Your task to perform on an android device: turn vacation reply on in the gmail app Image 0: 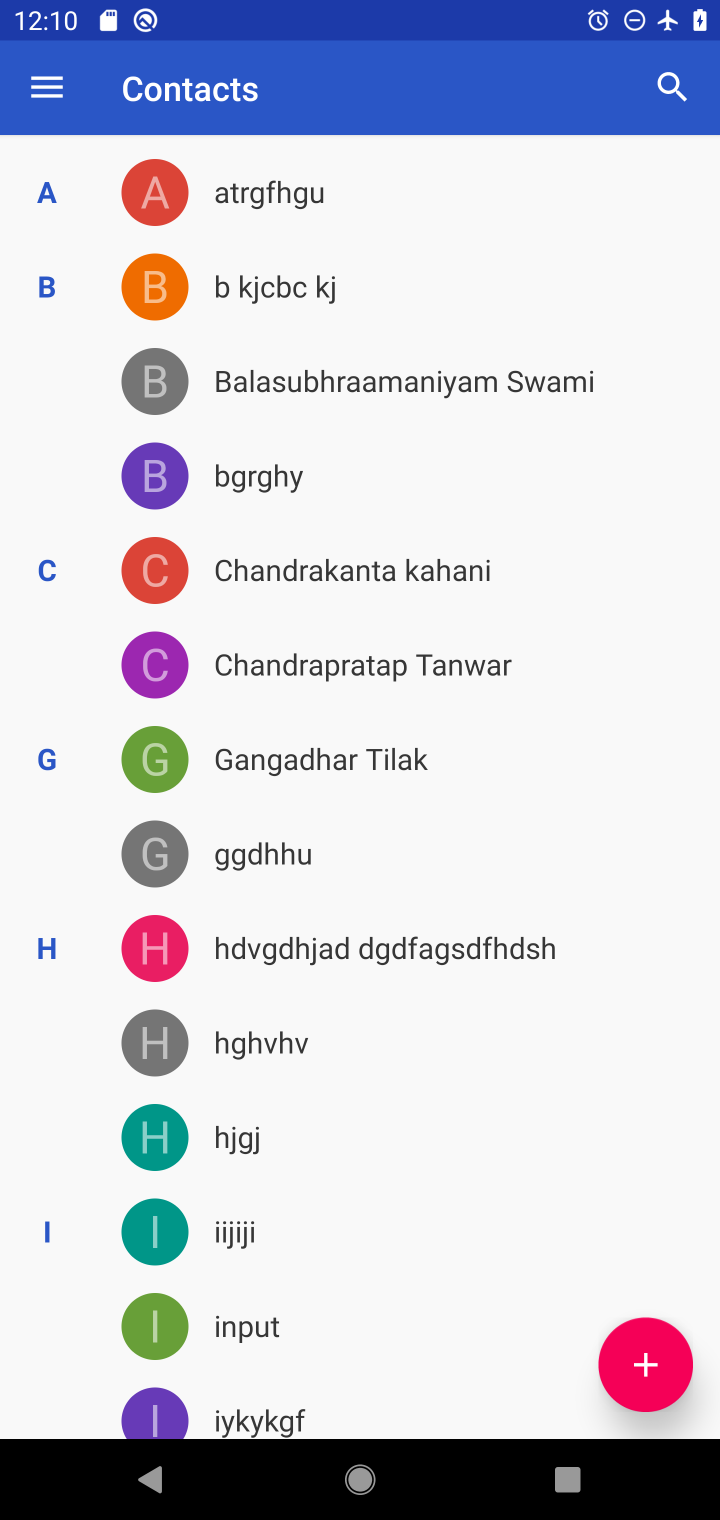
Step 0: press back button
Your task to perform on an android device: turn vacation reply on in the gmail app Image 1: 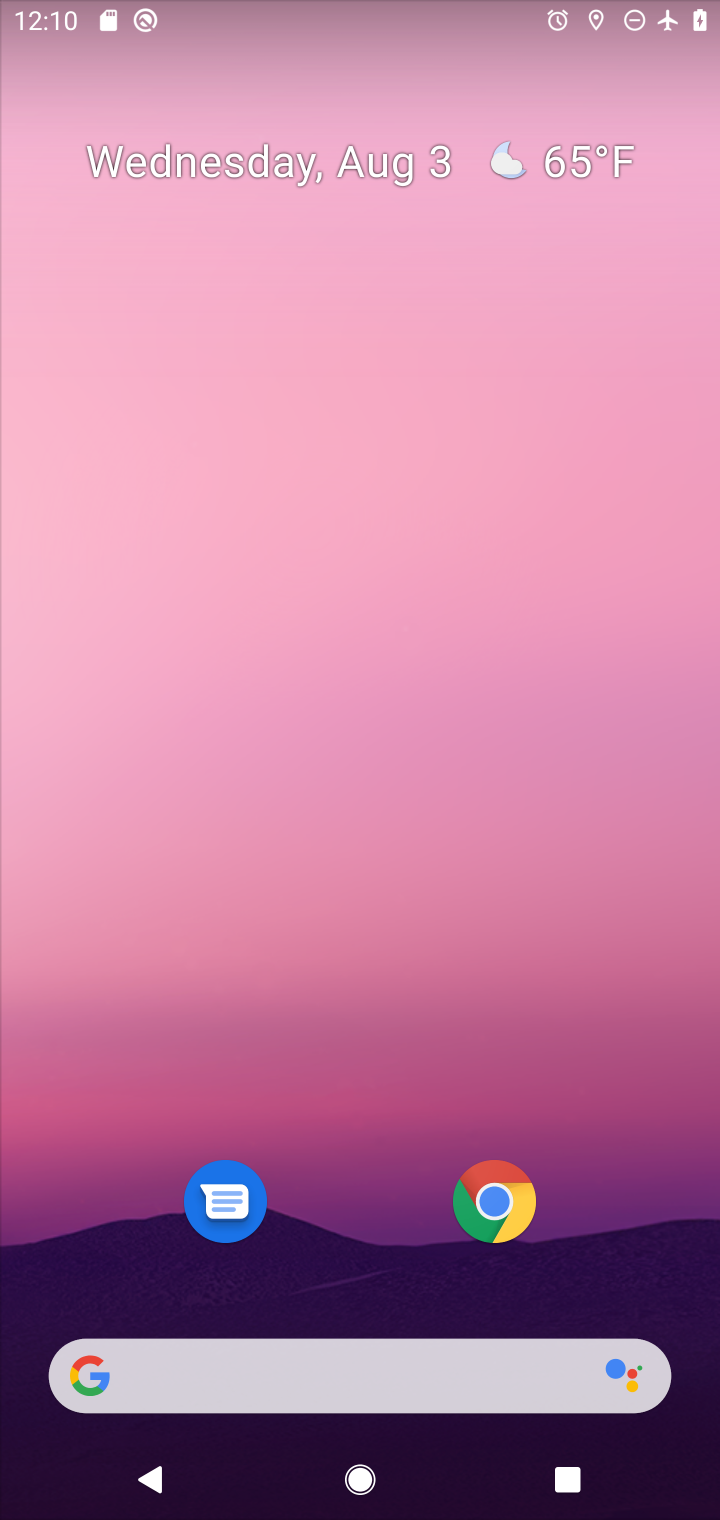
Step 1: drag from (334, 1295) to (301, 9)
Your task to perform on an android device: turn vacation reply on in the gmail app Image 2: 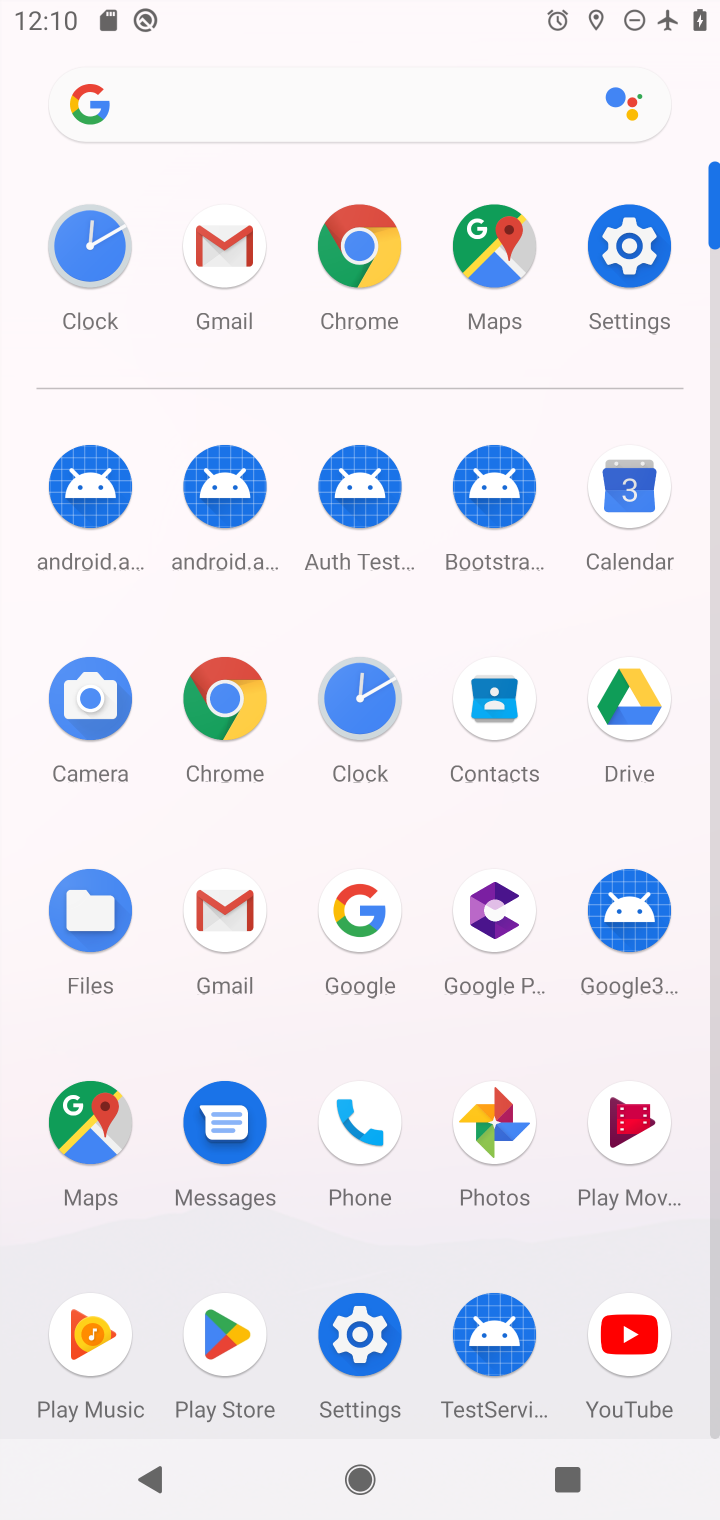
Step 2: click (213, 907)
Your task to perform on an android device: turn vacation reply on in the gmail app Image 3: 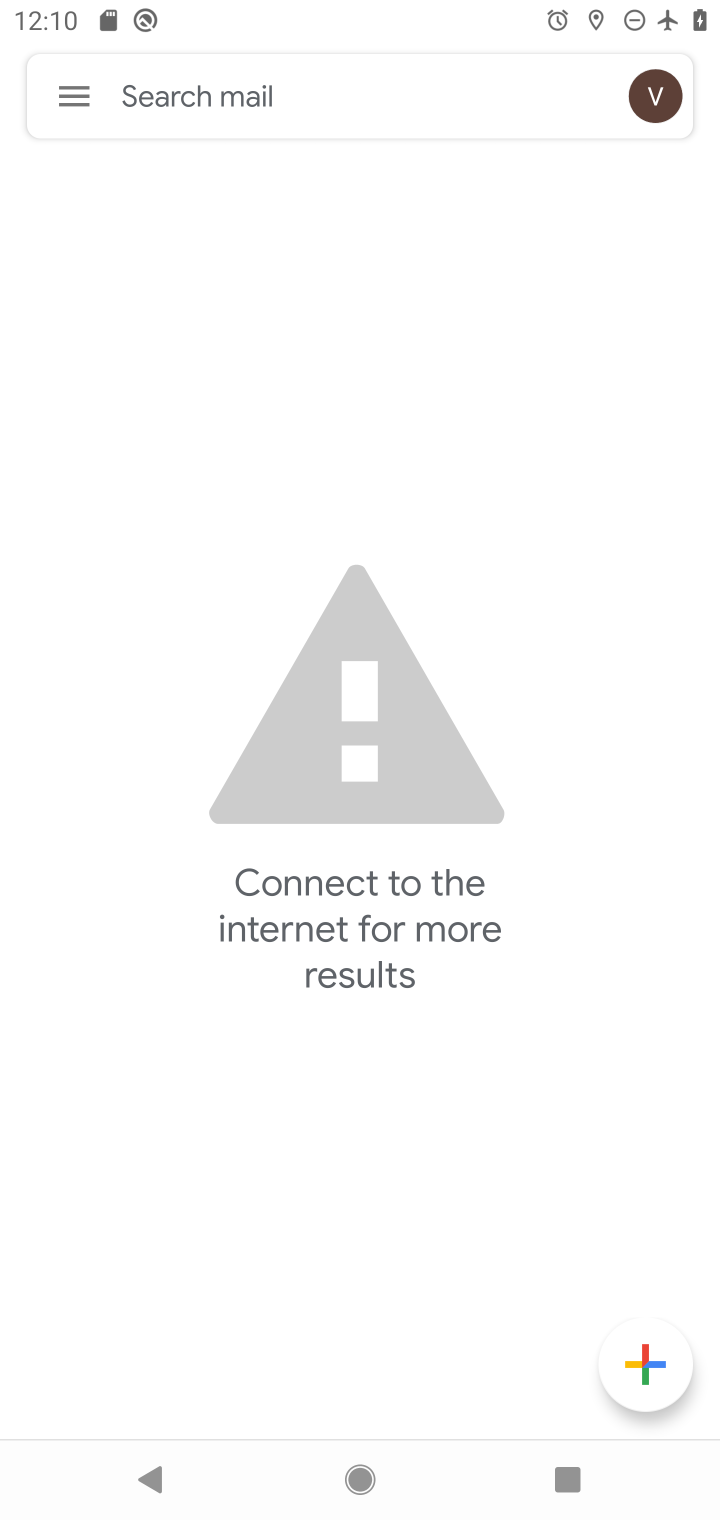
Step 3: click (39, 63)
Your task to perform on an android device: turn vacation reply on in the gmail app Image 4: 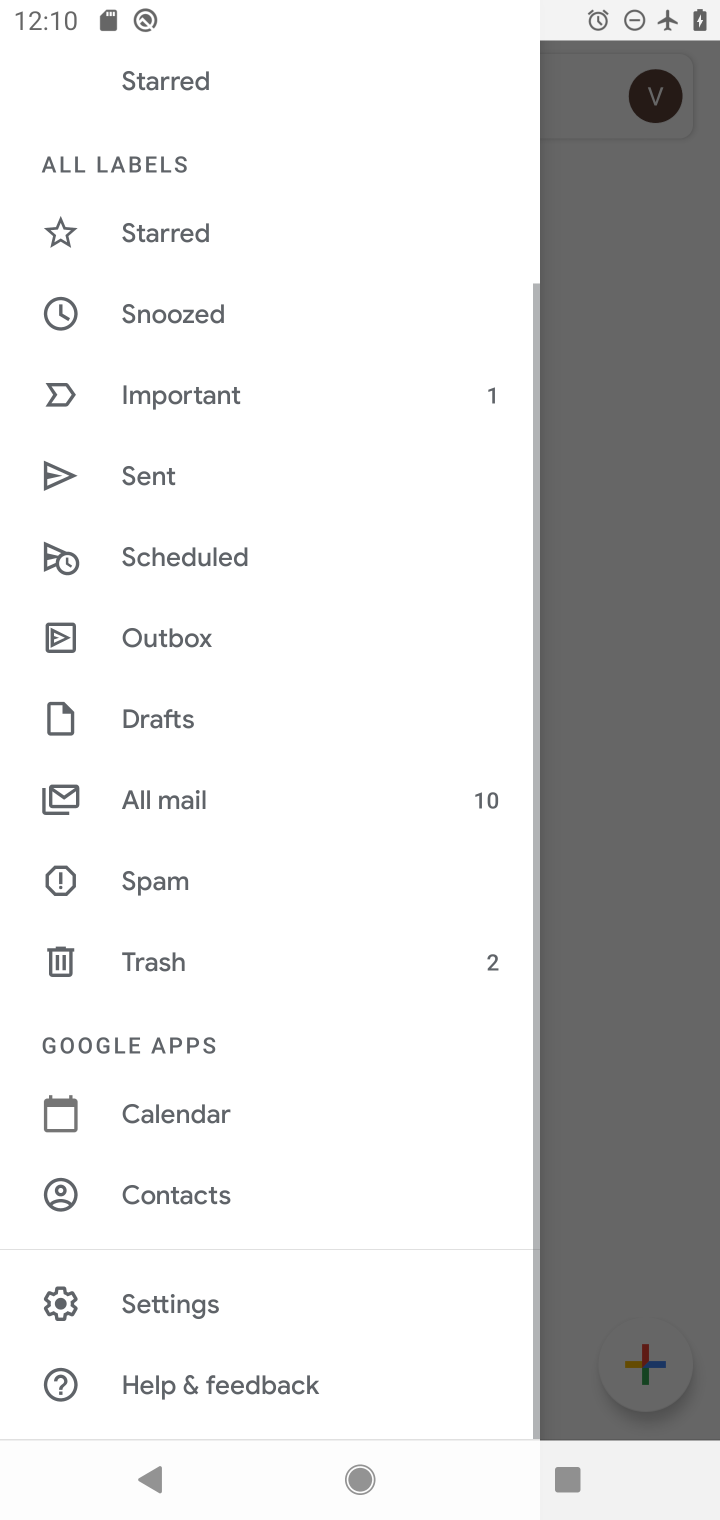
Step 4: click (147, 1285)
Your task to perform on an android device: turn vacation reply on in the gmail app Image 5: 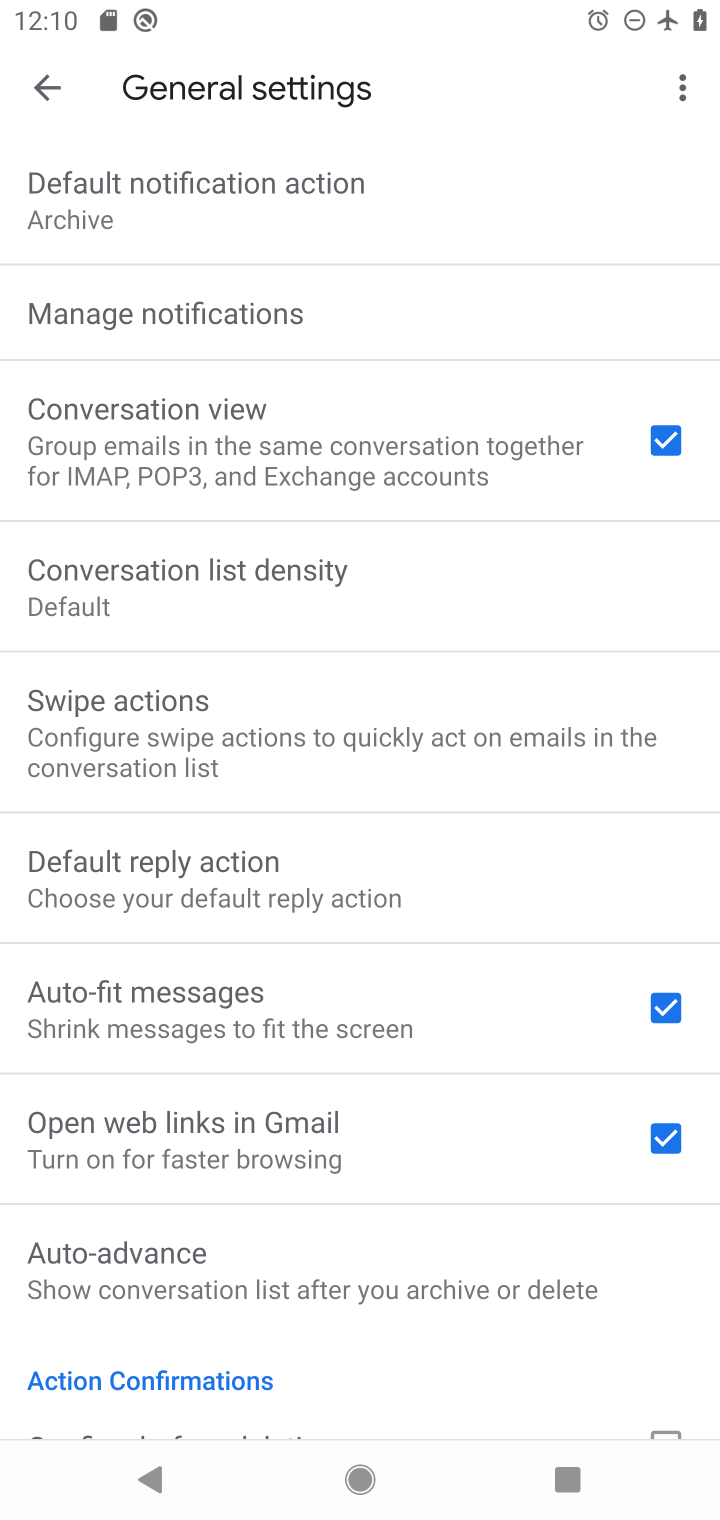
Step 5: drag from (321, 1373) to (265, 821)
Your task to perform on an android device: turn vacation reply on in the gmail app Image 6: 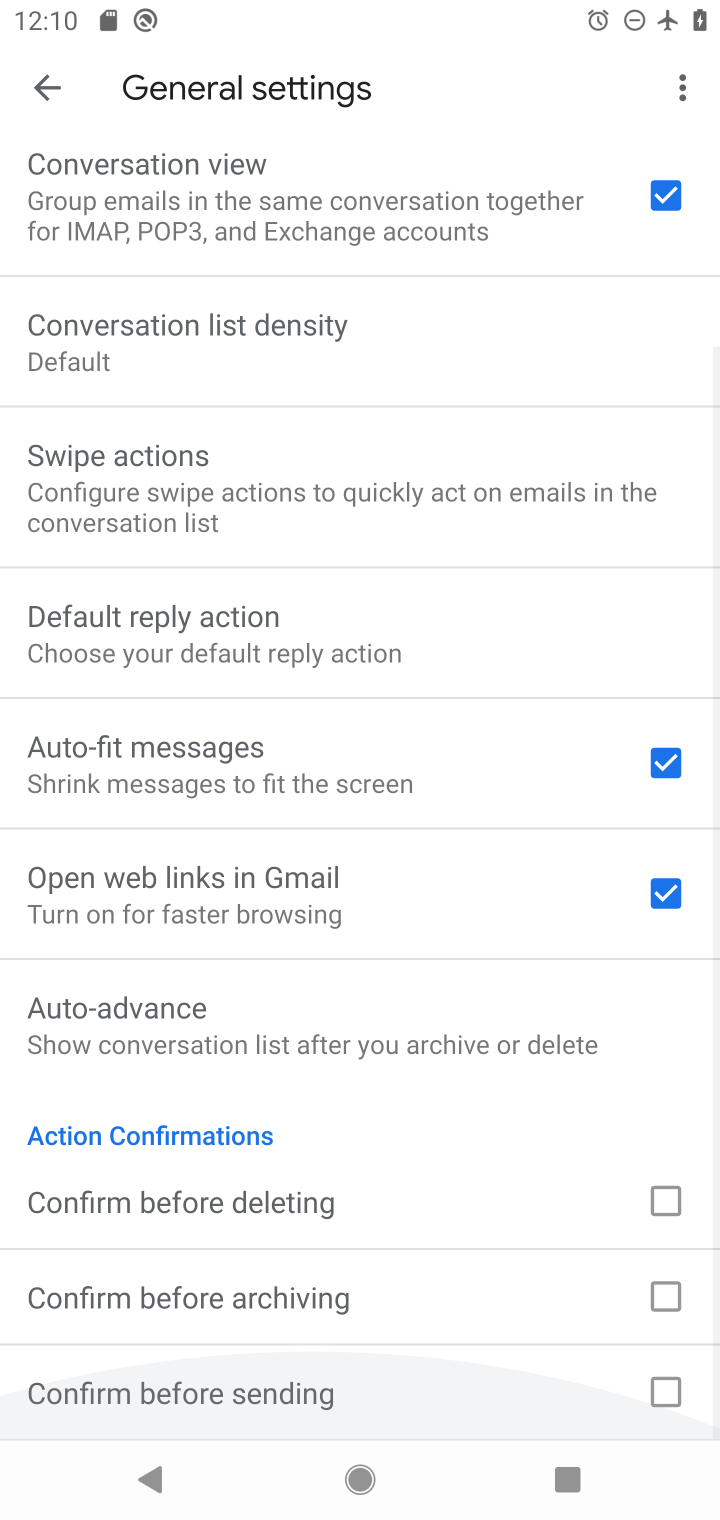
Step 6: click (57, 87)
Your task to perform on an android device: turn vacation reply on in the gmail app Image 7: 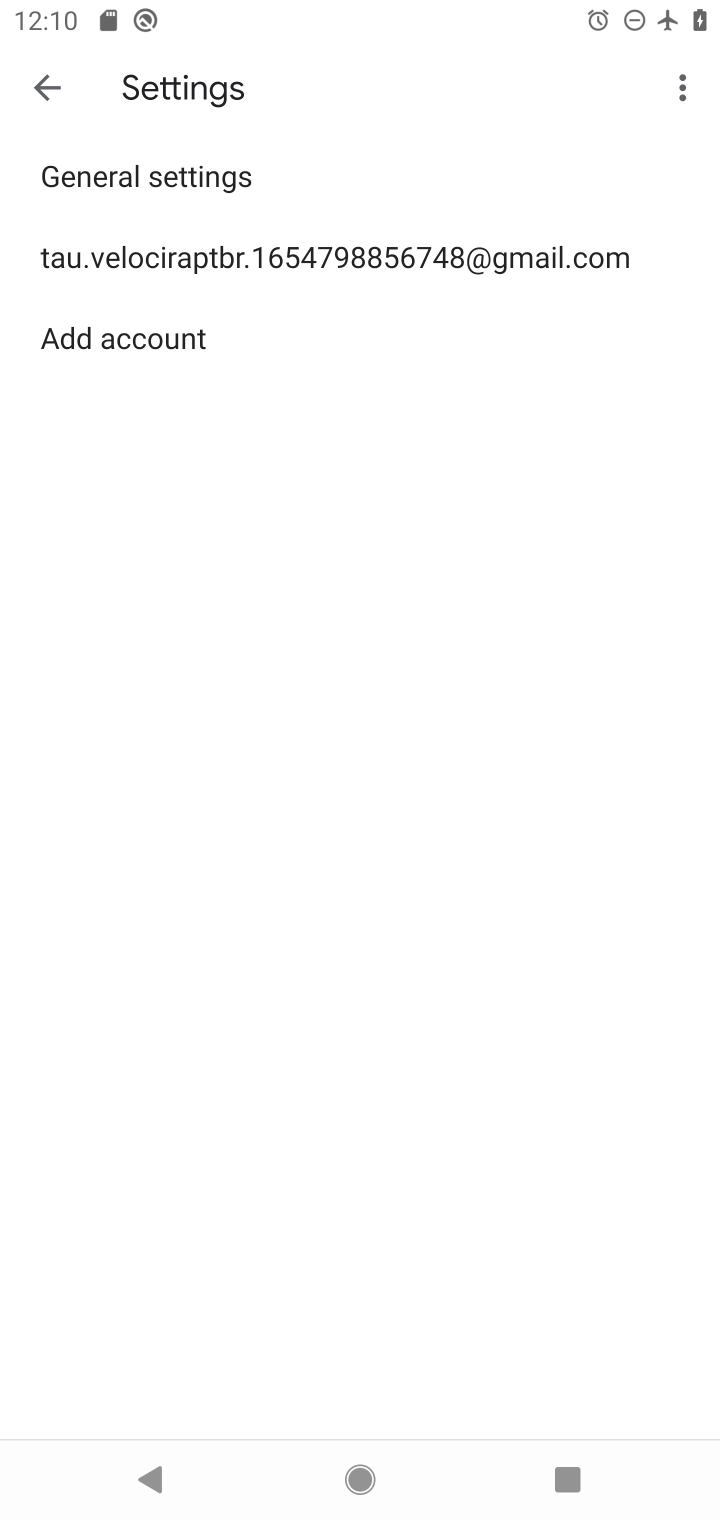
Step 7: click (148, 267)
Your task to perform on an android device: turn vacation reply on in the gmail app Image 8: 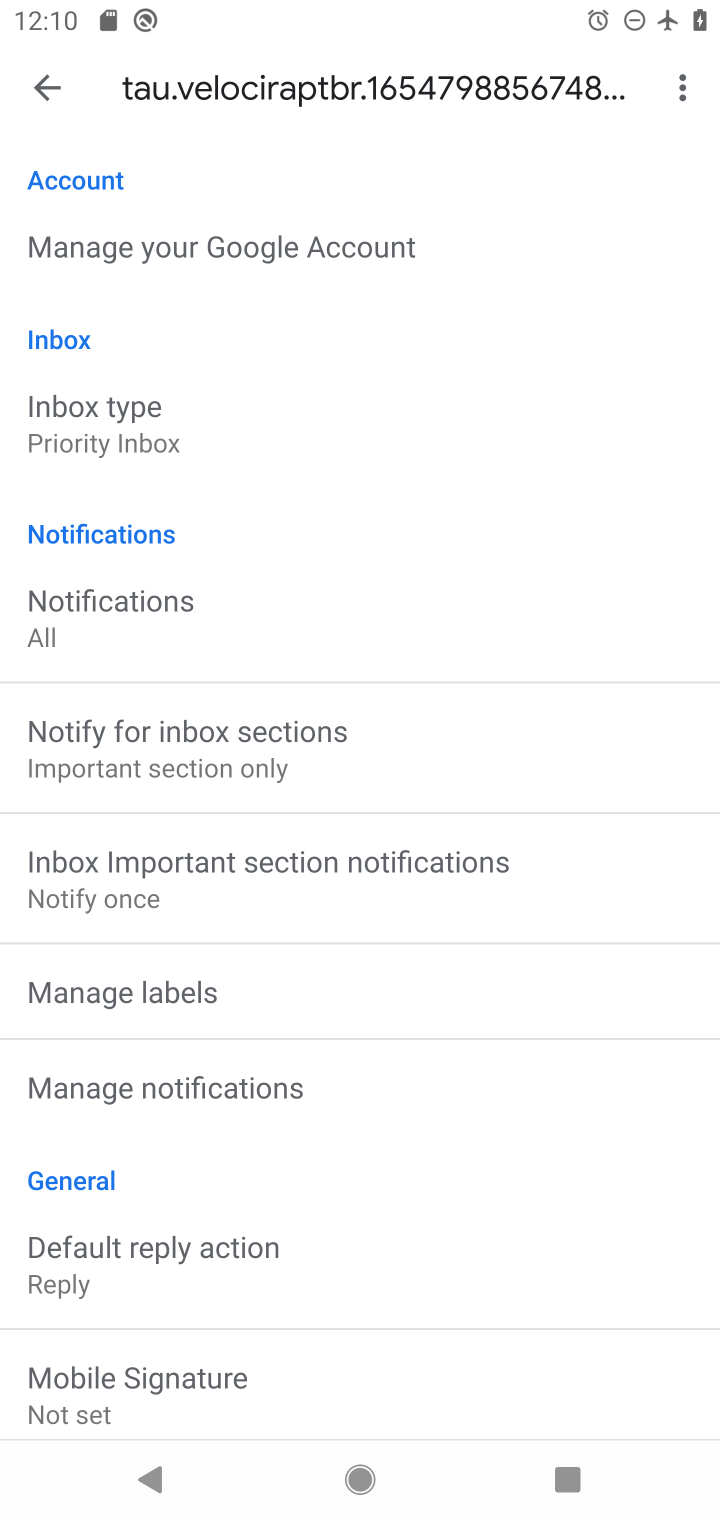
Step 8: drag from (252, 1196) to (252, 399)
Your task to perform on an android device: turn vacation reply on in the gmail app Image 9: 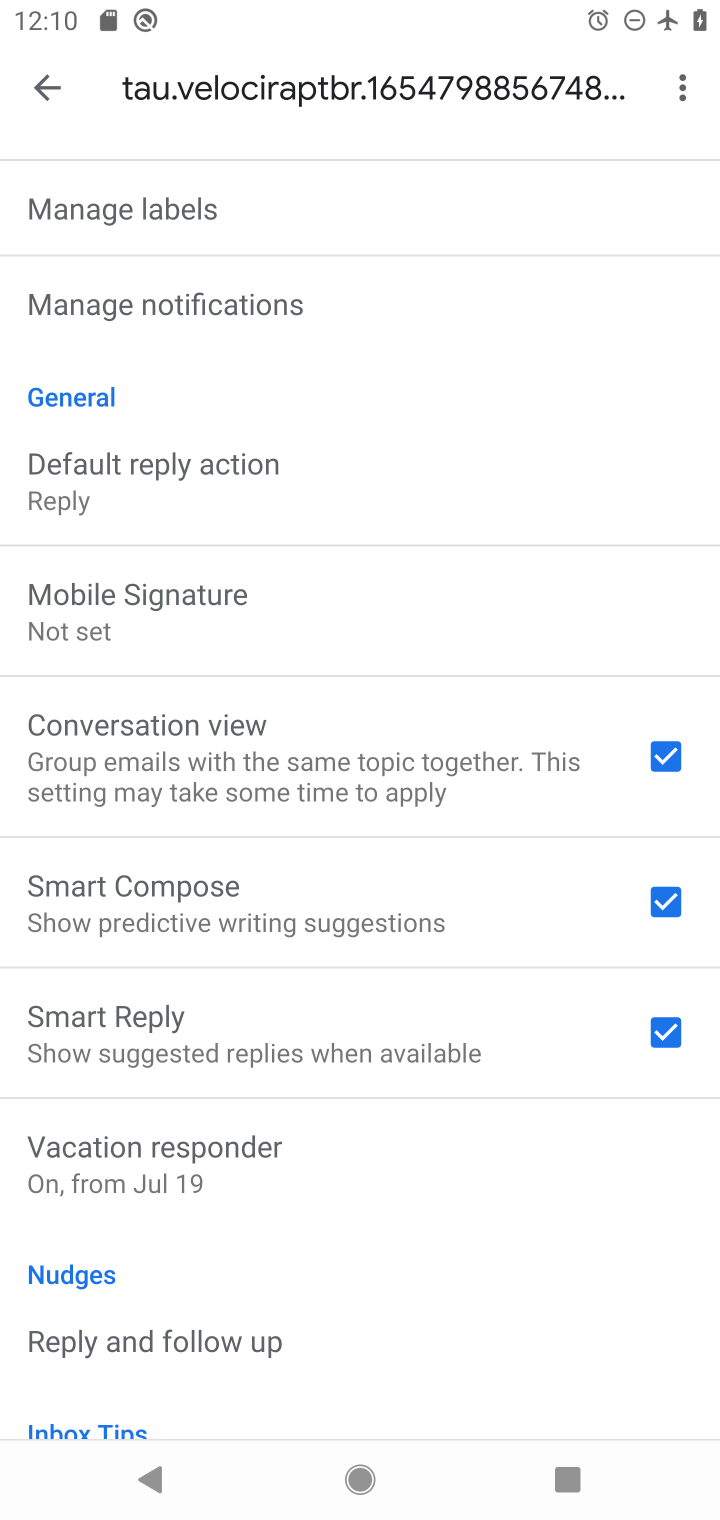
Step 9: click (158, 1118)
Your task to perform on an android device: turn vacation reply on in the gmail app Image 10: 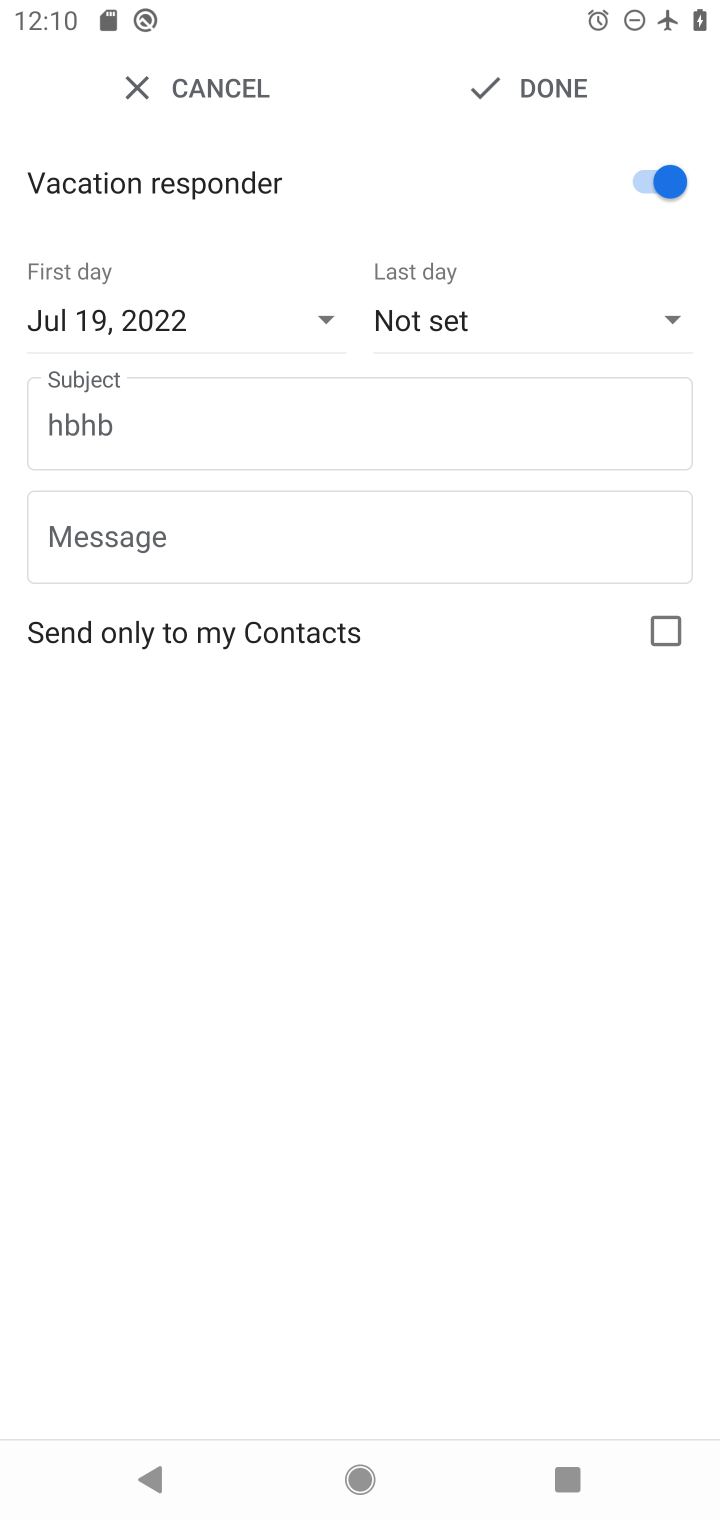
Step 10: click (528, 96)
Your task to perform on an android device: turn vacation reply on in the gmail app Image 11: 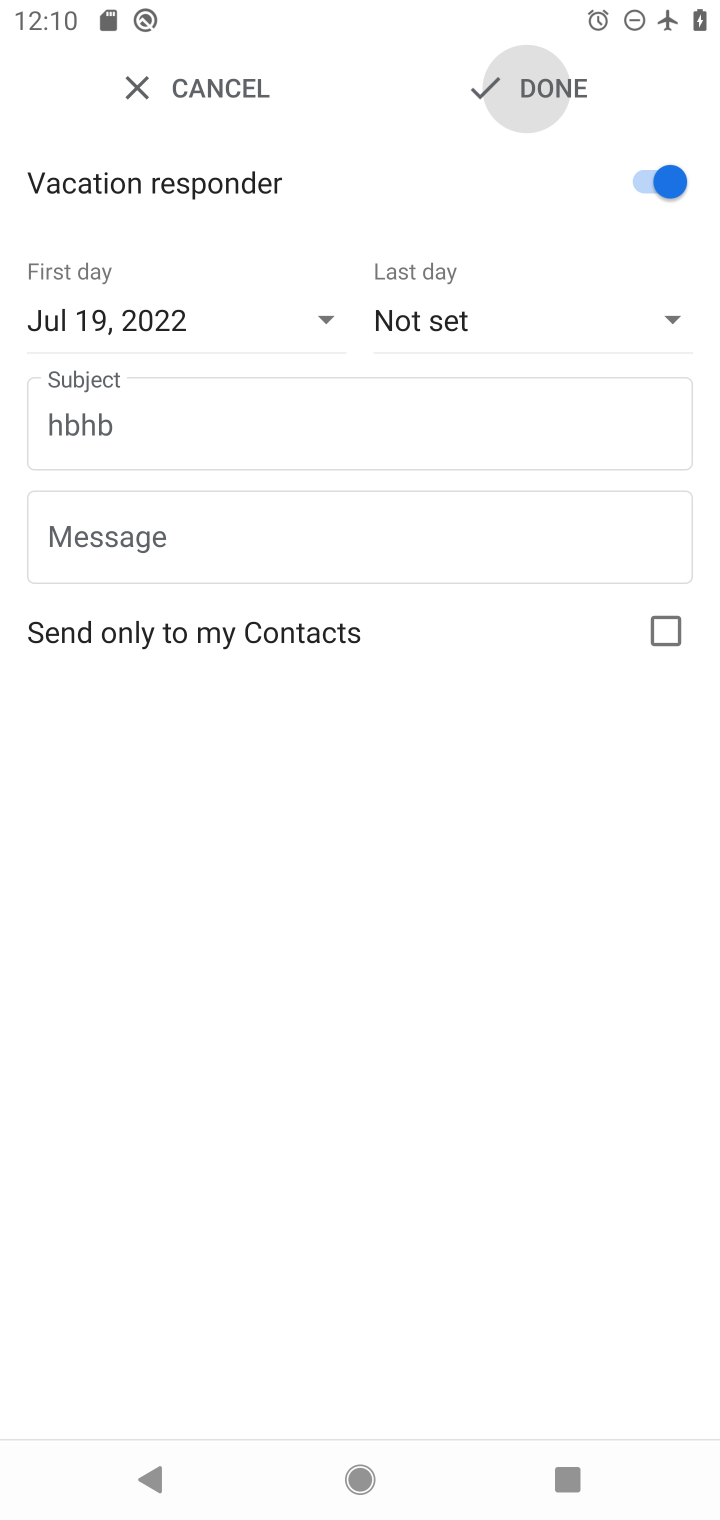
Step 11: task complete